Your task to perform on an android device: Open Chrome and go to the settings page Image 0: 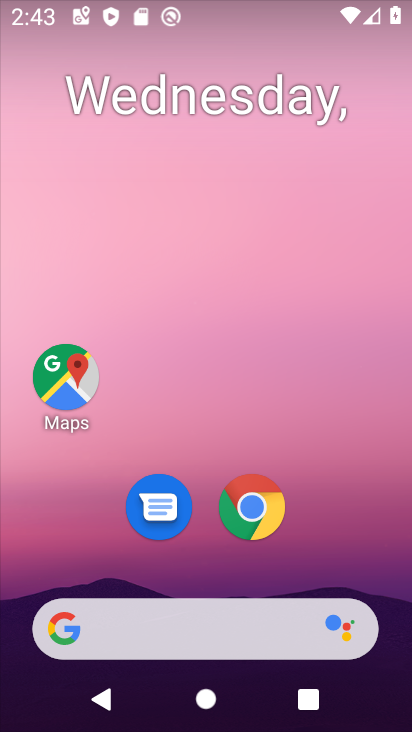
Step 0: click (249, 507)
Your task to perform on an android device: Open Chrome and go to the settings page Image 1: 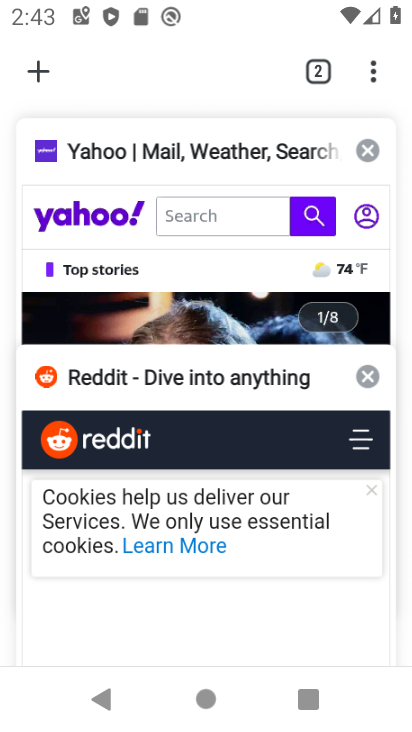
Step 1: click (368, 71)
Your task to perform on an android device: Open Chrome and go to the settings page Image 2: 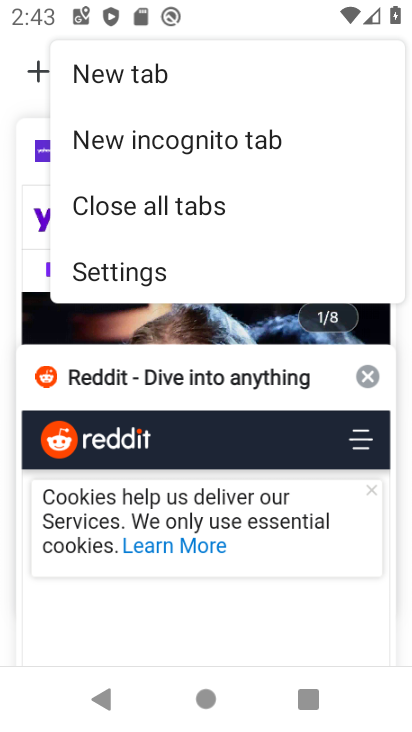
Step 2: click (102, 253)
Your task to perform on an android device: Open Chrome and go to the settings page Image 3: 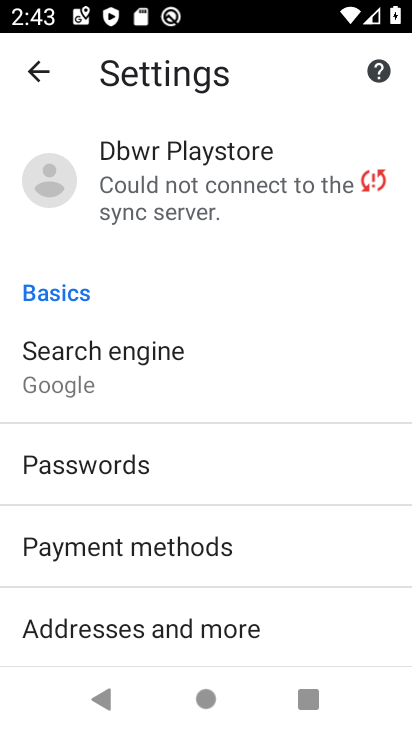
Step 3: task complete